Your task to perform on an android device: turn on the 12-hour format for clock Image 0: 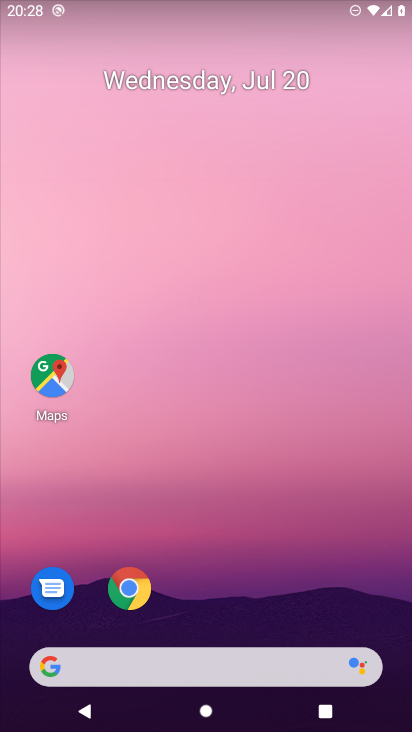
Step 0: drag from (57, 629) to (329, 38)
Your task to perform on an android device: turn on the 12-hour format for clock Image 1: 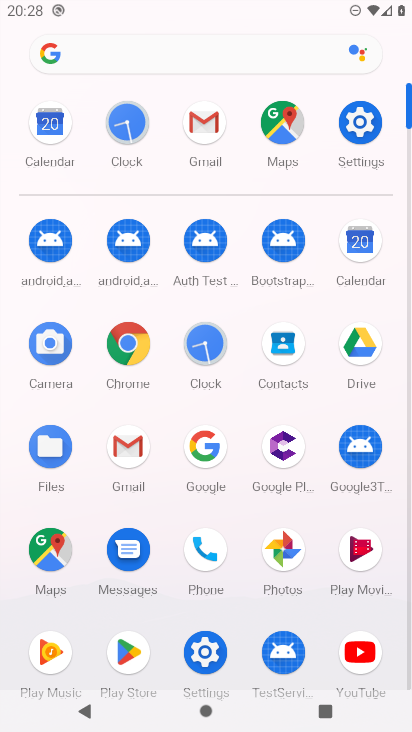
Step 1: click (197, 353)
Your task to perform on an android device: turn on the 12-hour format for clock Image 2: 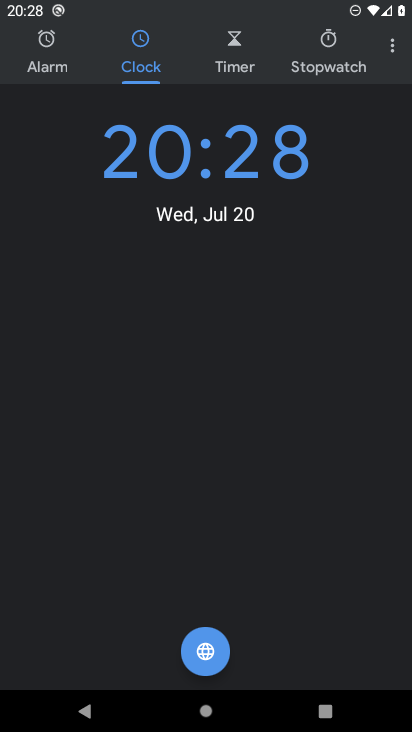
Step 2: click (390, 52)
Your task to perform on an android device: turn on the 12-hour format for clock Image 3: 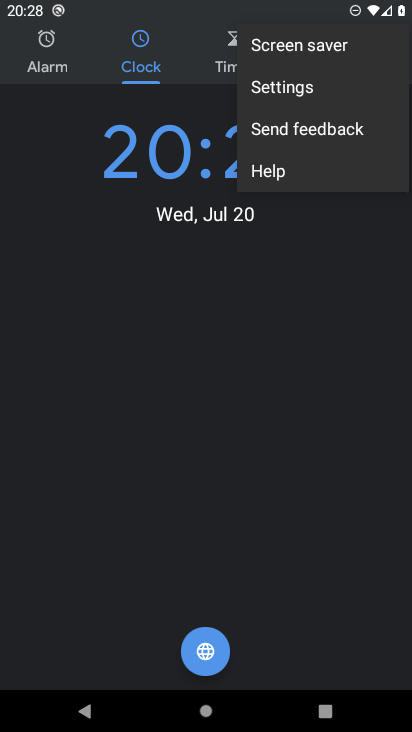
Step 3: click (288, 95)
Your task to perform on an android device: turn on the 12-hour format for clock Image 4: 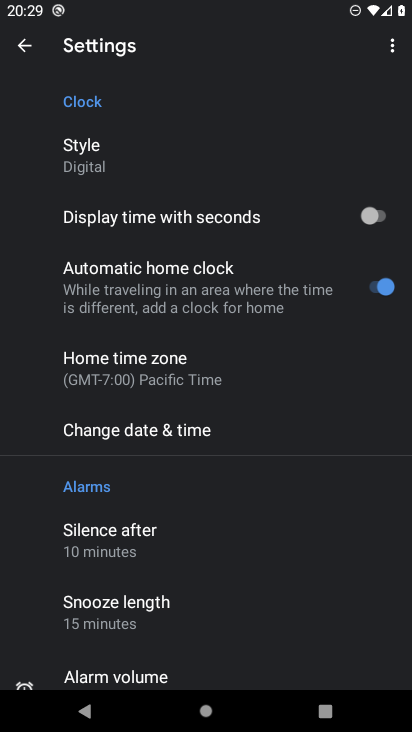
Step 4: click (185, 432)
Your task to perform on an android device: turn on the 12-hour format for clock Image 5: 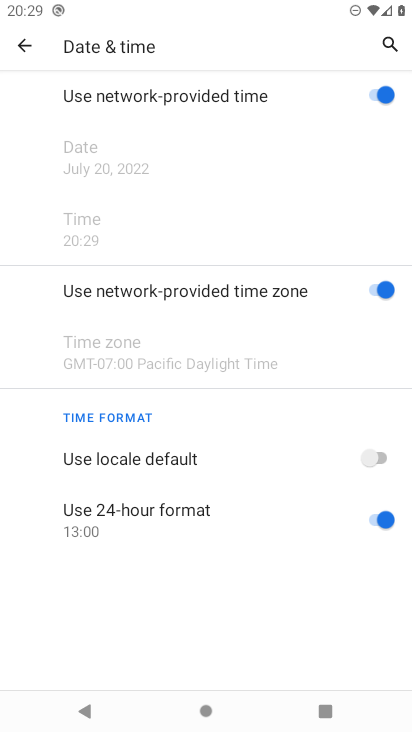
Step 5: click (390, 516)
Your task to perform on an android device: turn on the 12-hour format for clock Image 6: 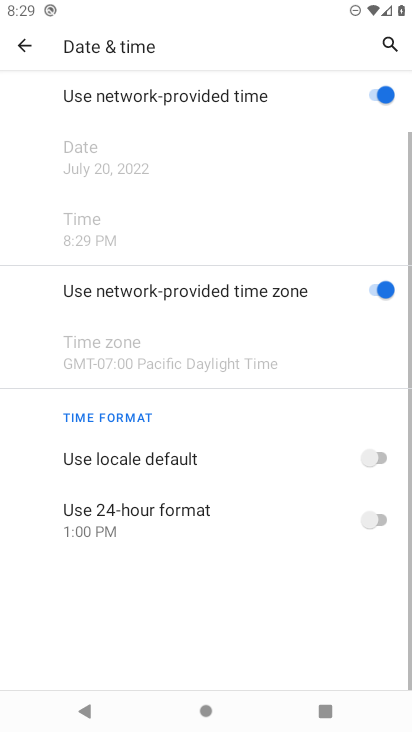
Step 6: click (365, 448)
Your task to perform on an android device: turn on the 12-hour format for clock Image 7: 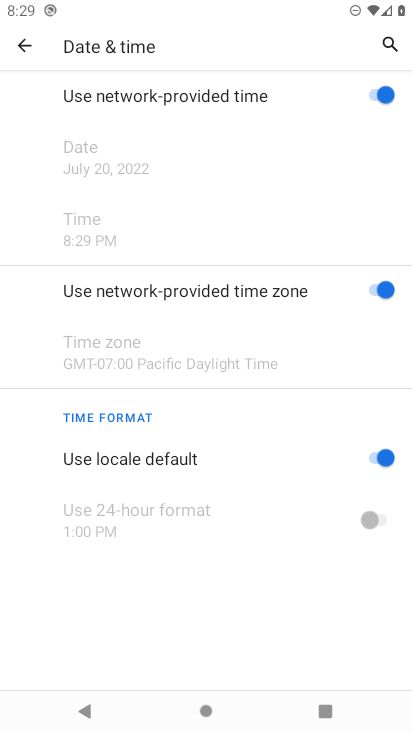
Step 7: task complete